Your task to perform on an android device: check the backup settings in the google photos Image 0: 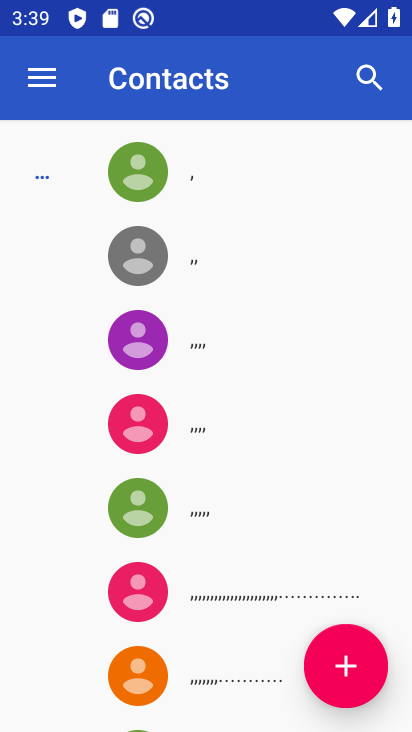
Step 0: press home button
Your task to perform on an android device: check the backup settings in the google photos Image 1: 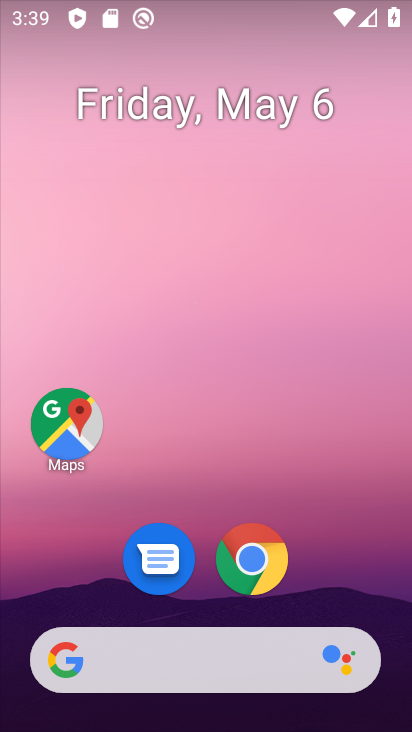
Step 1: drag from (183, 633) to (169, 323)
Your task to perform on an android device: check the backup settings in the google photos Image 2: 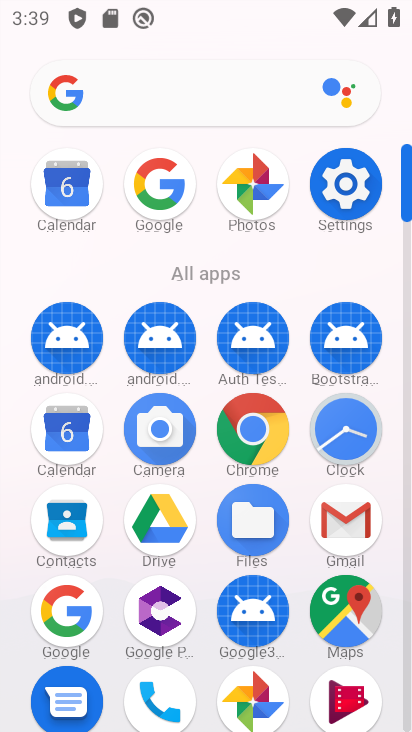
Step 2: click (258, 194)
Your task to perform on an android device: check the backup settings in the google photos Image 3: 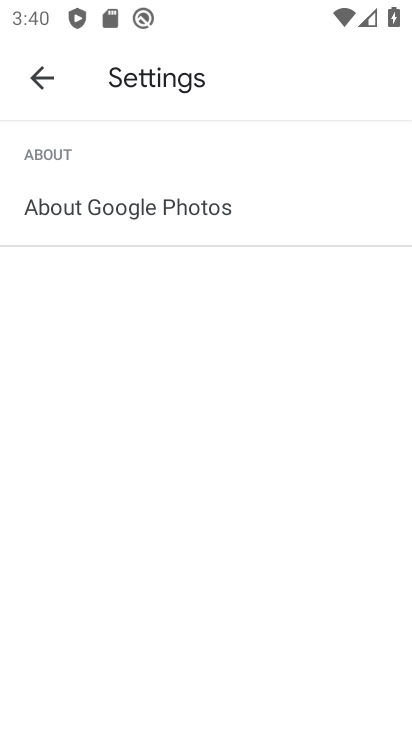
Step 3: click (45, 81)
Your task to perform on an android device: check the backup settings in the google photos Image 4: 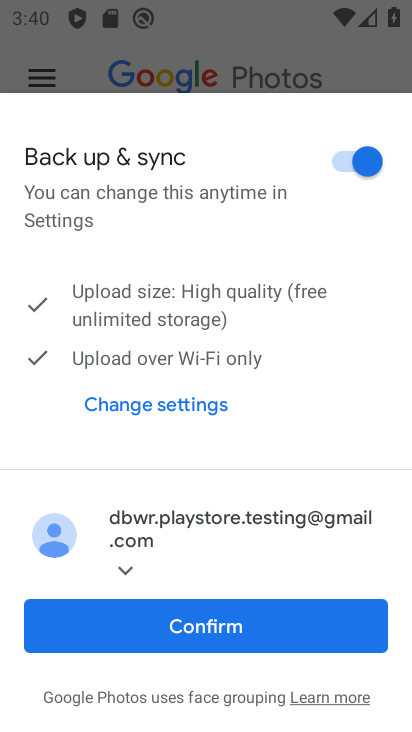
Step 4: click (230, 614)
Your task to perform on an android device: check the backup settings in the google photos Image 5: 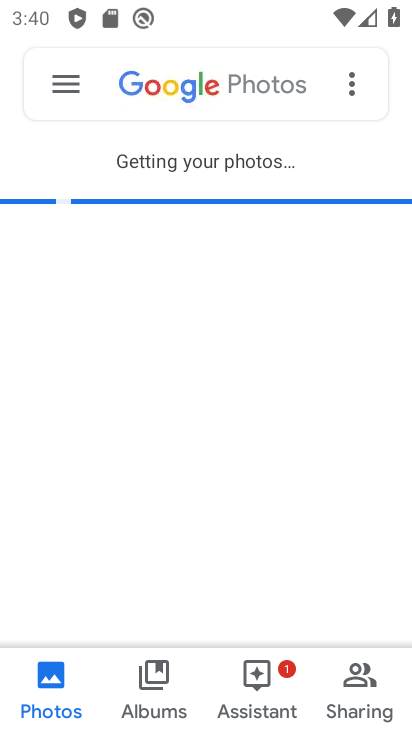
Step 5: click (28, 74)
Your task to perform on an android device: check the backup settings in the google photos Image 6: 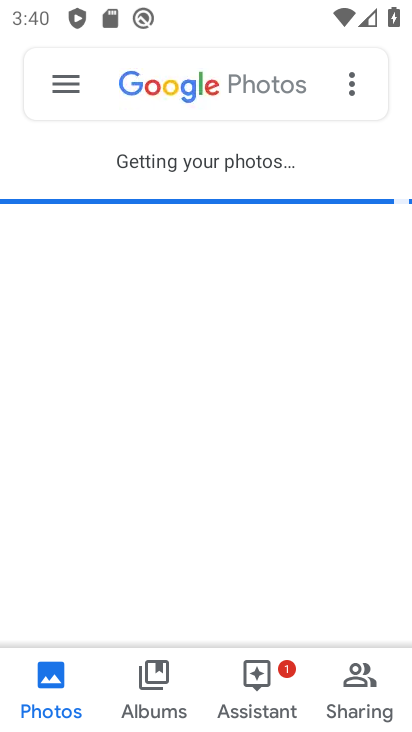
Step 6: click (59, 83)
Your task to perform on an android device: check the backup settings in the google photos Image 7: 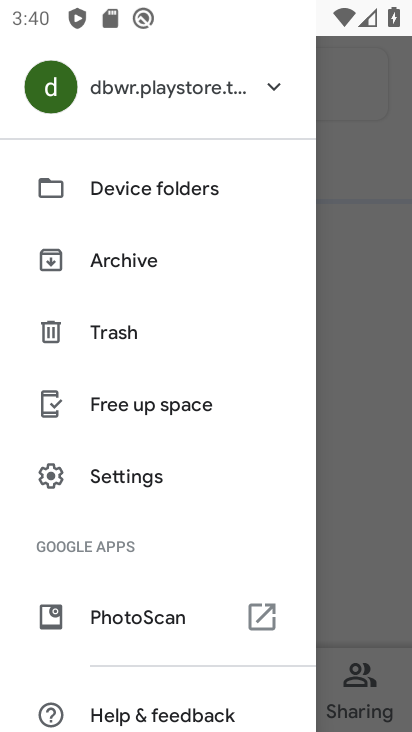
Step 7: click (122, 478)
Your task to perform on an android device: check the backup settings in the google photos Image 8: 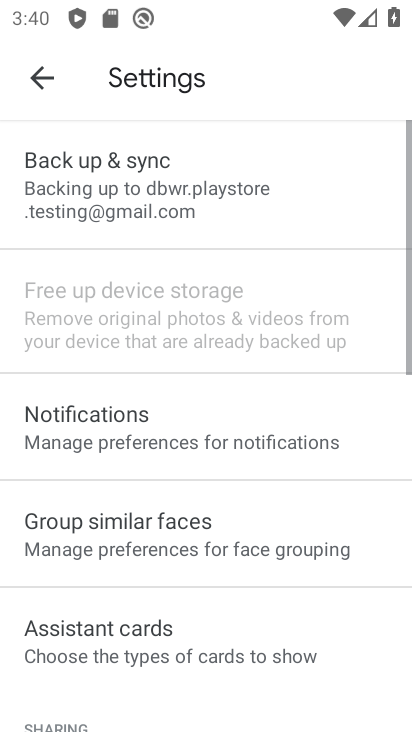
Step 8: click (152, 181)
Your task to perform on an android device: check the backup settings in the google photos Image 9: 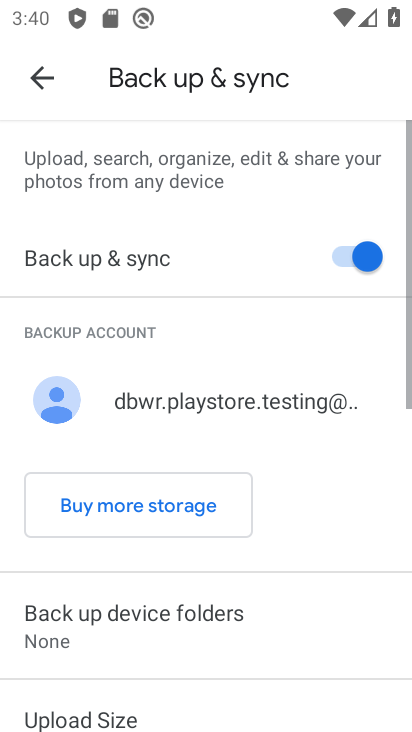
Step 9: task complete